Your task to perform on an android device: turn off sleep mode Image 0: 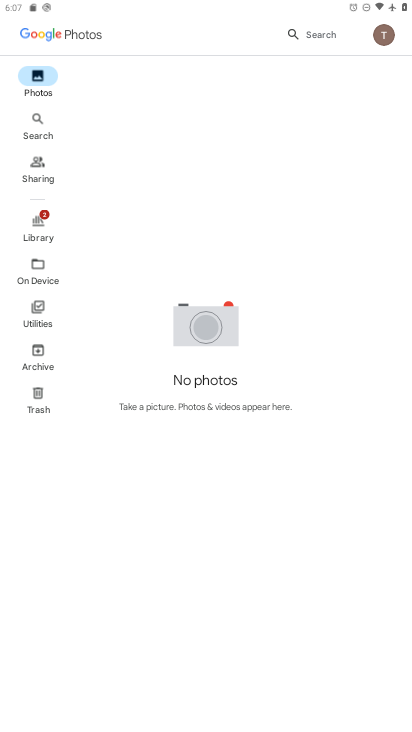
Step 0: press home button
Your task to perform on an android device: turn off sleep mode Image 1: 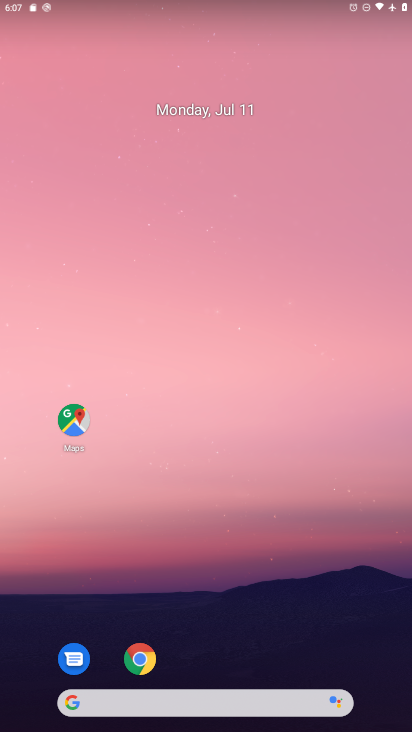
Step 1: drag from (366, 639) to (355, 170)
Your task to perform on an android device: turn off sleep mode Image 2: 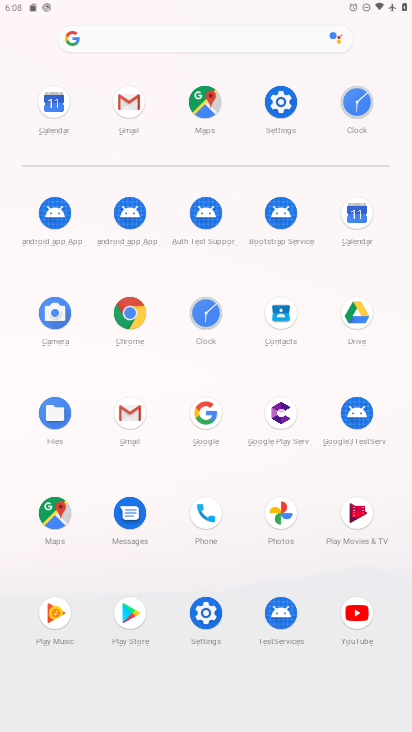
Step 2: click (207, 614)
Your task to perform on an android device: turn off sleep mode Image 3: 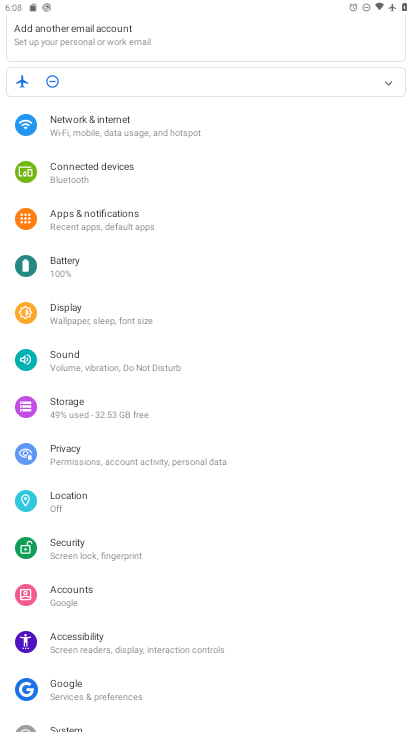
Step 3: click (60, 316)
Your task to perform on an android device: turn off sleep mode Image 4: 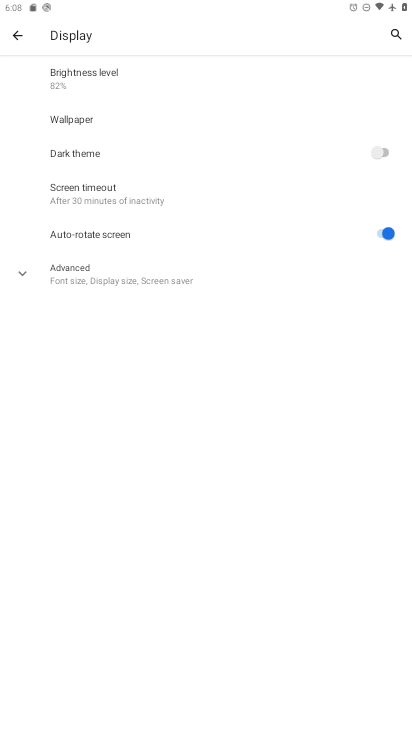
Step 4: click (20, 279)
Your task to perform on an android device: turn off sleep mode Image 5: 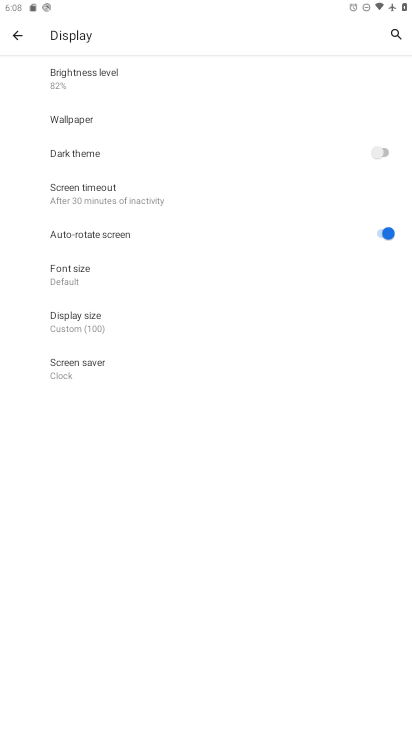
Step 5: task complete